Your task to perform on an android device: Turn off the flashlight Image 0: 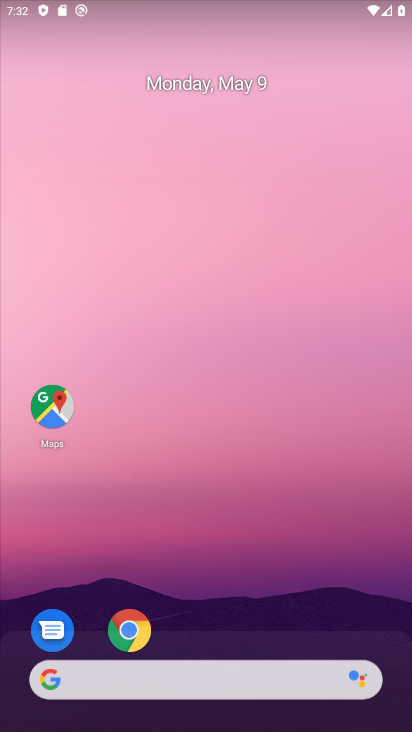
Step 0: drag from (354, 613) to (325, 81)
Your task to perform on an android device: Turn off the flashlight Image 1: 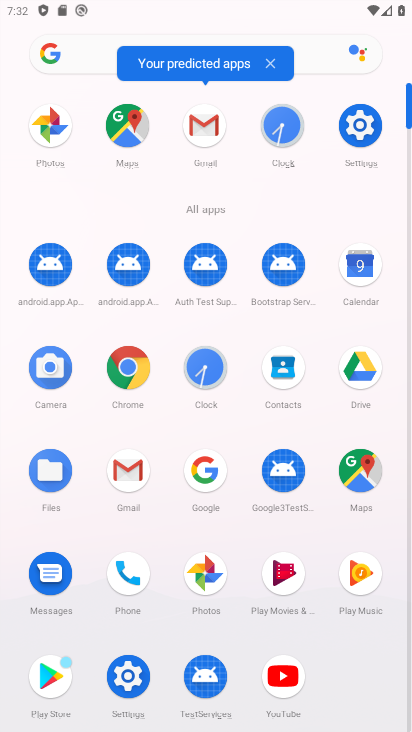
Step 1: click (364, 130)
Your task to perform on an android device: Turn off the flashlight Image 2: 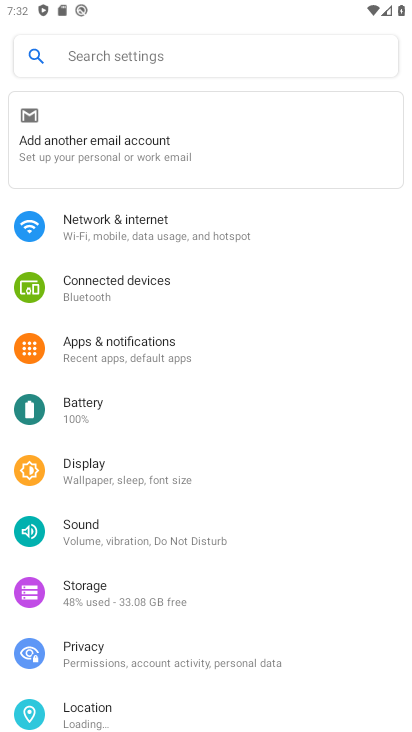
Step 2: click (145, 61)
Your task to perform on an android device: Turn off the flashlight Image 3: 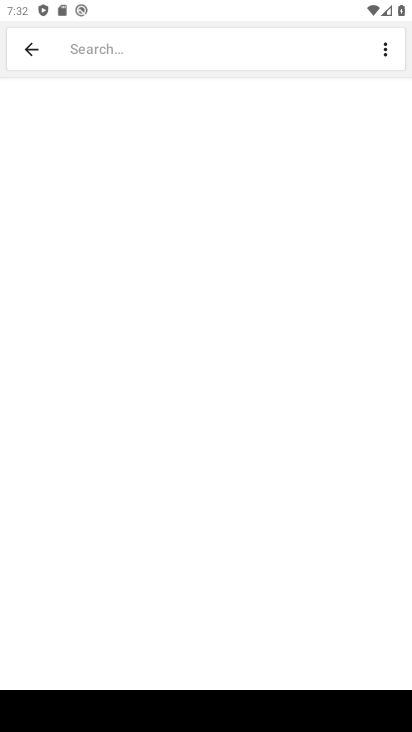
Step 3: type "flashlight"
Your task to perform on an android device: Turn off the flashlight Image 4: 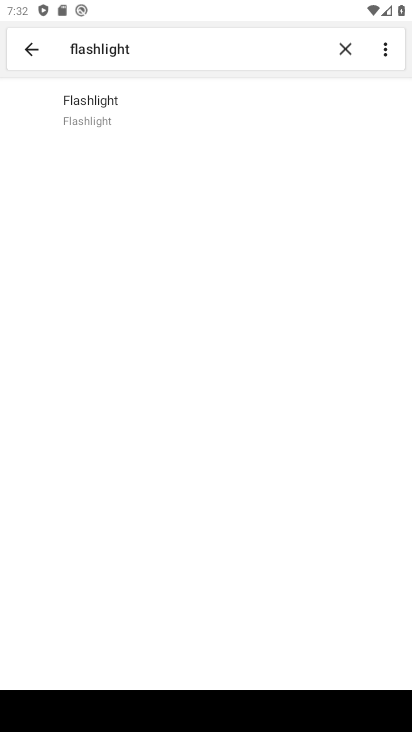
Step 4: click (90, 96)
Your task to perform on an android device: Turn off the flashlight Image 5: 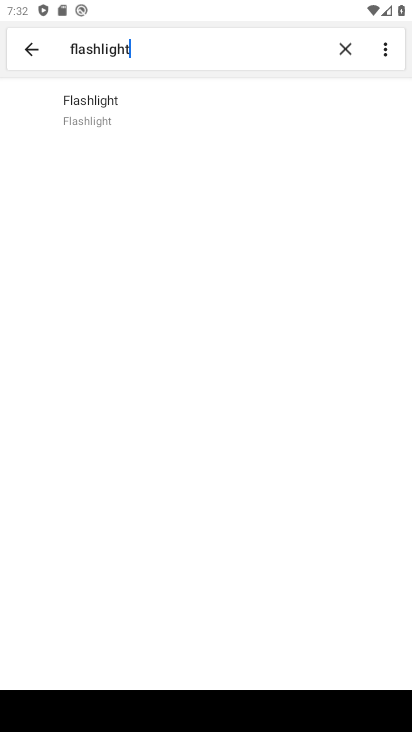
Step 5: task complete